Your task to perform on an android device: Search for Mexican restaurants on Maps Image 0: 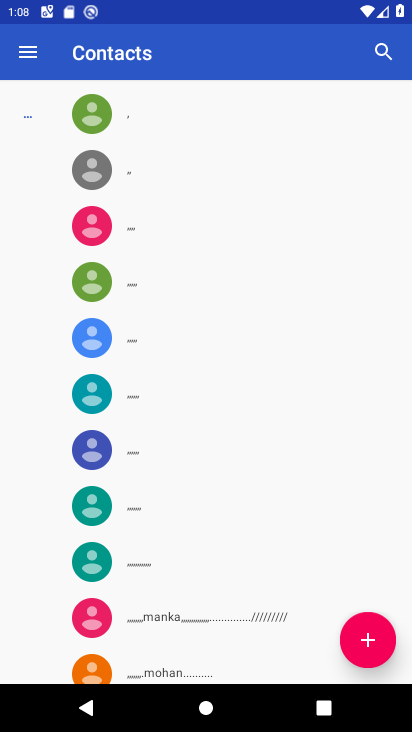
Step 0: press home button
Your task to perform on an android device: Search for Mexican restaurants on Maps Image 1: 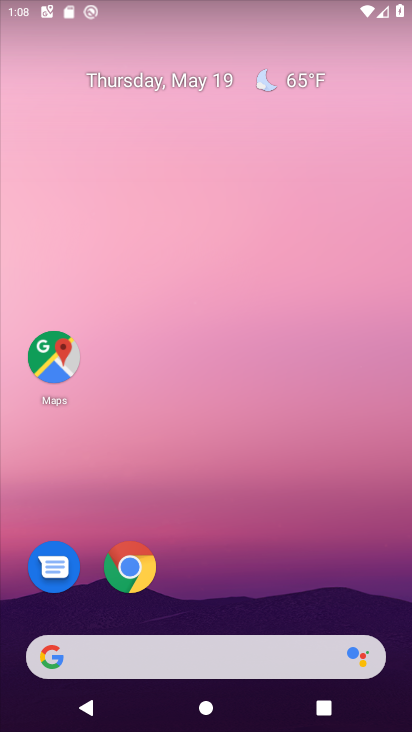
Step 1: click (37, 353)
Your task to perform on an android device: Search for Mexican restaurants on Maps Image 2: 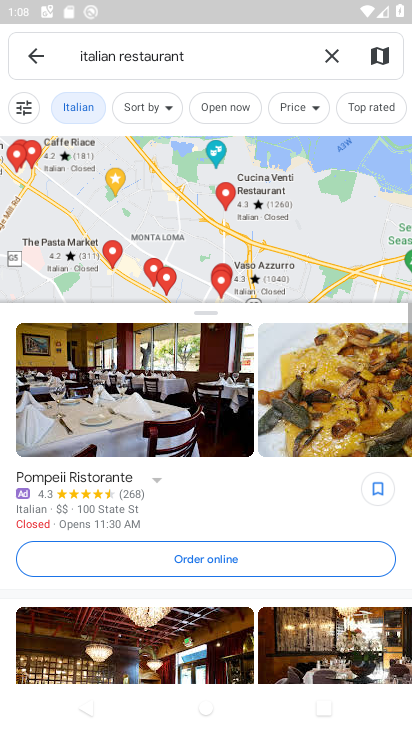
Step 2: click (332, 45)
Your task to perform on an android device: Search for Mexican restaurants on Maps Image 3: 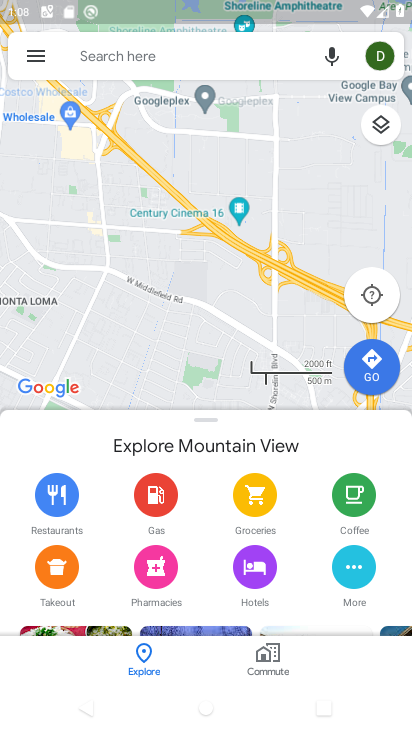
Step 3: click (175, 48)
Your task to perform on an android device: Search for Mexican restaurants on Maps Image 4: 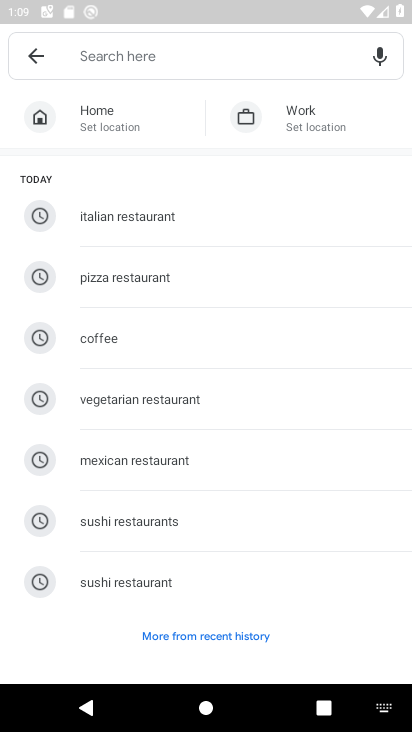
Step 4: click (114, 464)
Your task to perform on an android device: Search for Mexican restaurants on Maps Image 5: 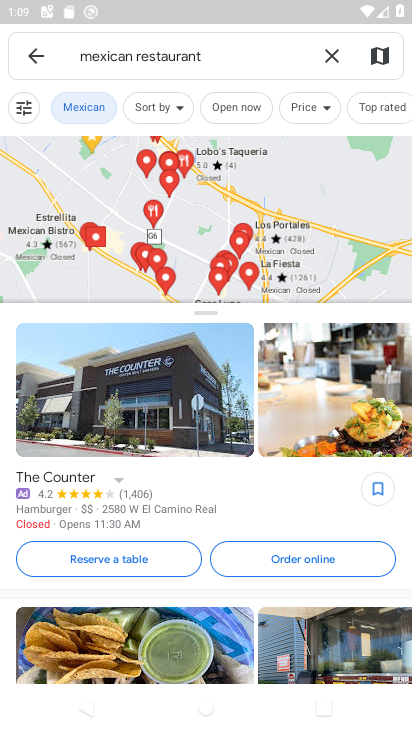
Step 5: task complete